Your task to perform on an android device: turn on data saver in the chrome app Image 0: 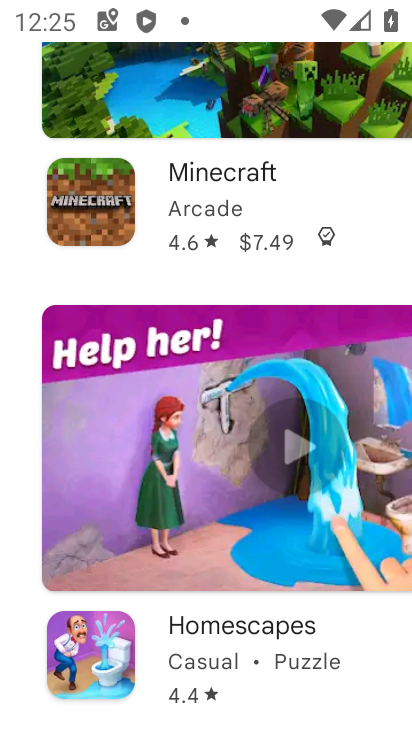
Step 0: press home button
Your task to perform on an android device: turn on data saver in the chrome app Image 1: 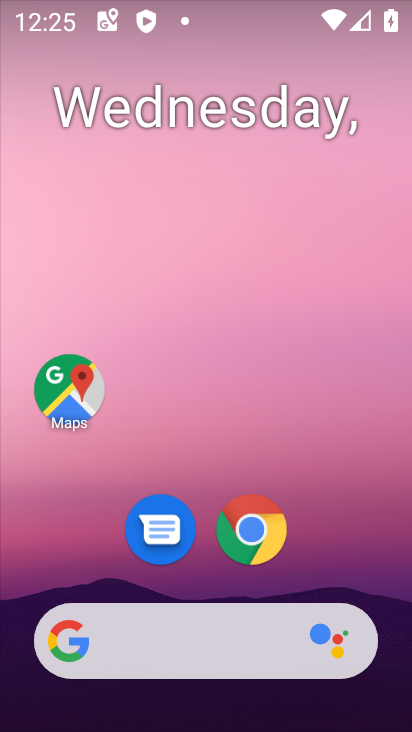
Step 1: click (256, 528)
Your task to perform on an android device: turn on data saver in the chrome app Image 2: 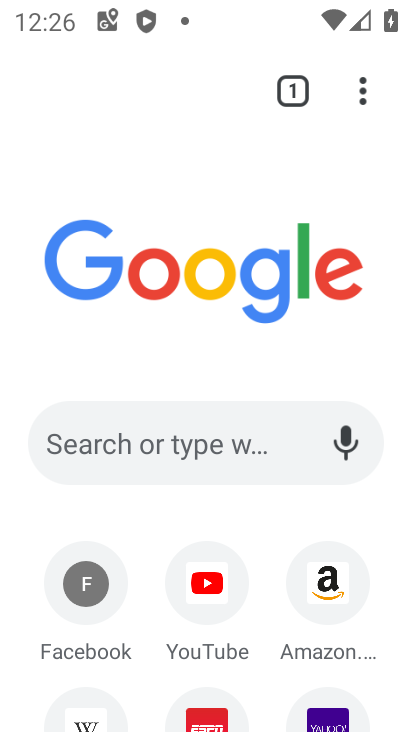
Step 2: click (367, 101)
Your task to perform on an android device: turn on data saver in the chrome app Image 3: 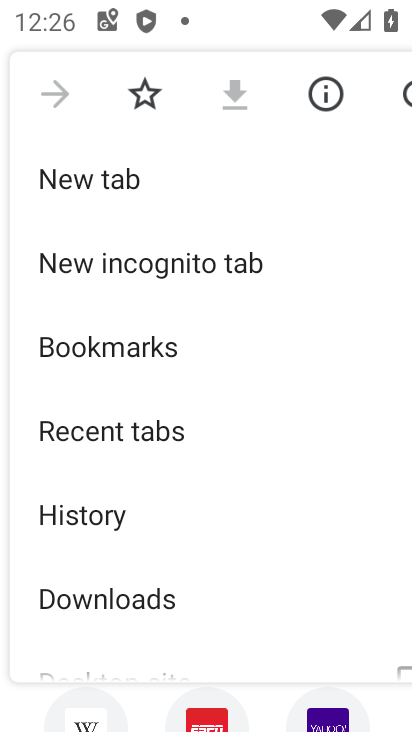
Step 3: drag from (224, 593) to (225, 74)
Your task to perform on an android device: turn on data saver in the chrome app Image 4: 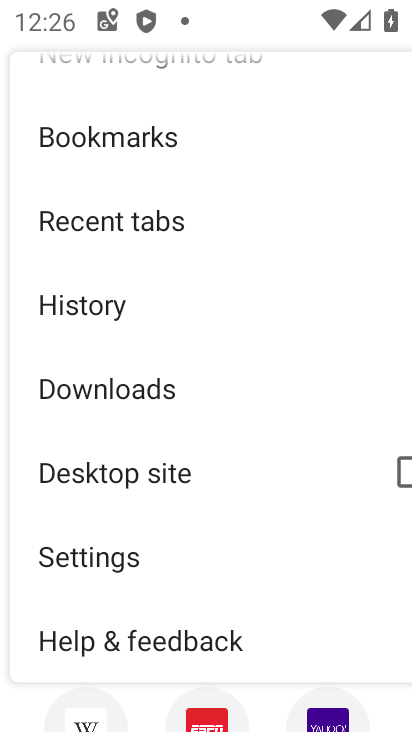
Step 4: click (113, 556)
Your task to perform on an android device: turn on data saver in the chrome app Image 5: 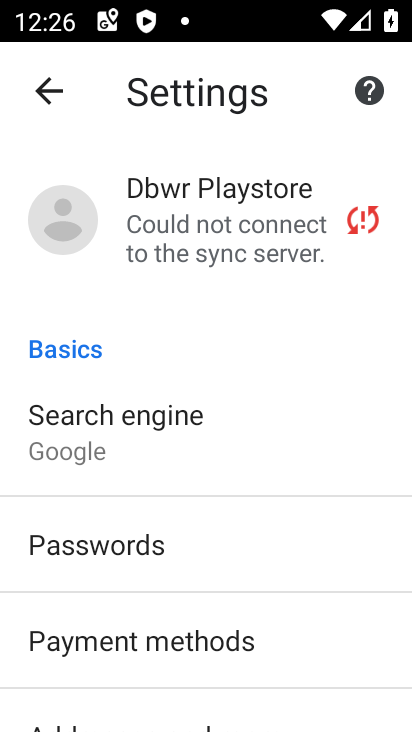
Step 5: drag from (297, 674) to (229, 203)
Your task to perform on an android device: turn on data saver in the chrome app Image 6: 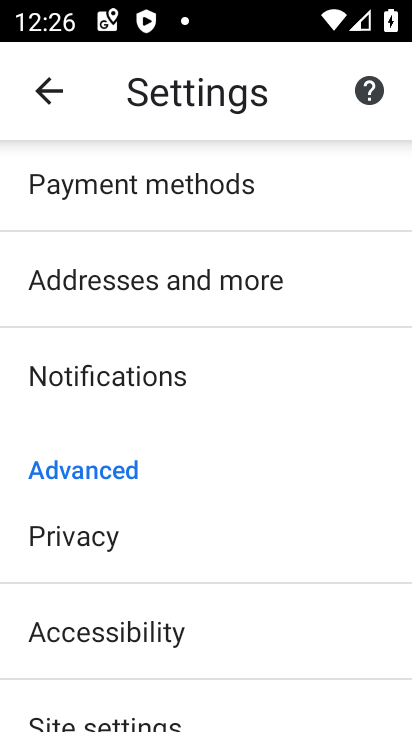
Step 6: drag from (253, 612) to (294, 193)
Your task to perform on an android device: turn on data saver in the chrome app Image 7: 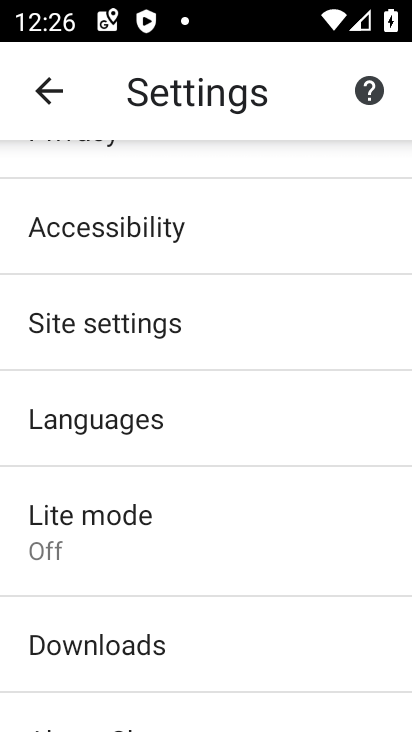
Step 7: click (82, 527)
Your task to perform on an android device: turn on data saver in the chrome app Image 8: 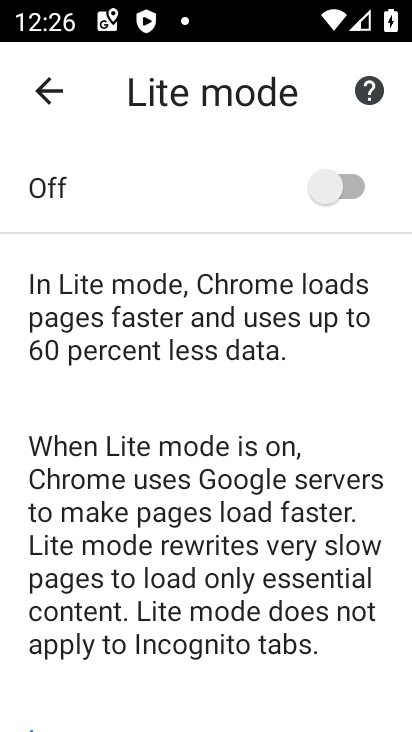
Step 8: click (353, 190)
Your task to perform on an android device: turn on data saver in the chrome app Image 9: 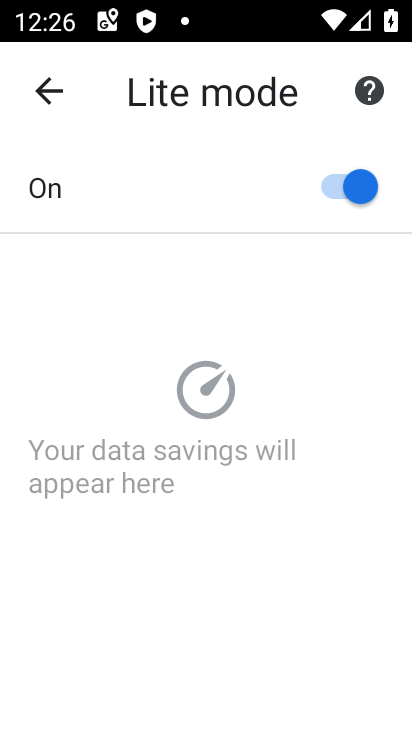
Step 9: task complete